Your task to perform on an android device: Set the phone to "Do not disturb". Image 0: 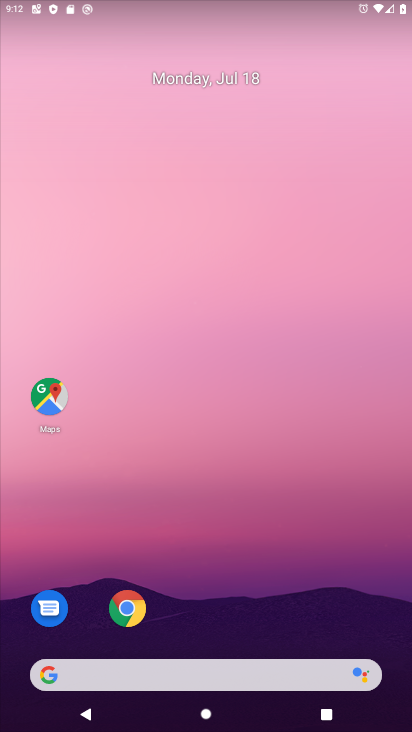
Step 0: press home button
Your task to perform on an android device: Set the phone to "Do not disturb". Image 1: 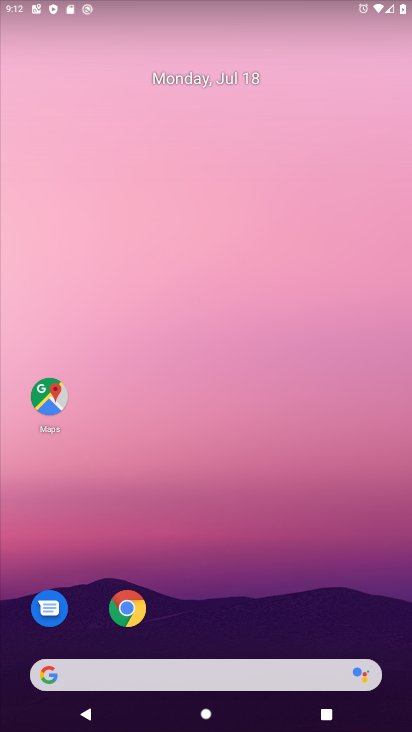
Step 1: drag from (211, 639) to (286, 2)
Your task to perform on an android device: Set the phone to "Do not disturb". Image 2: 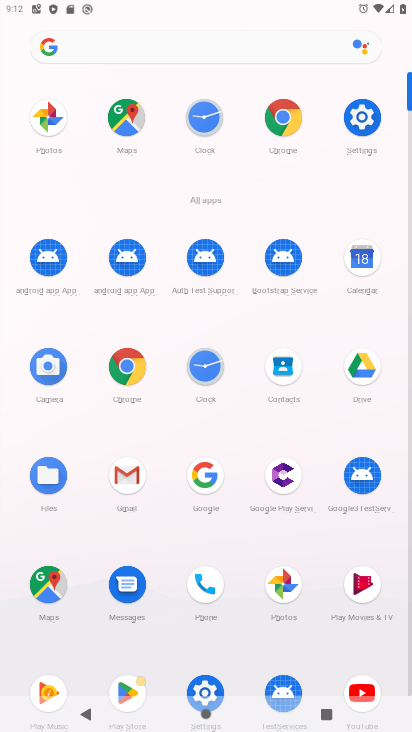
Step 2: drag from (181, 4) to (190, 490)
Your task to perform on an android device: Set the phone to "Do not disturb". Image 3: 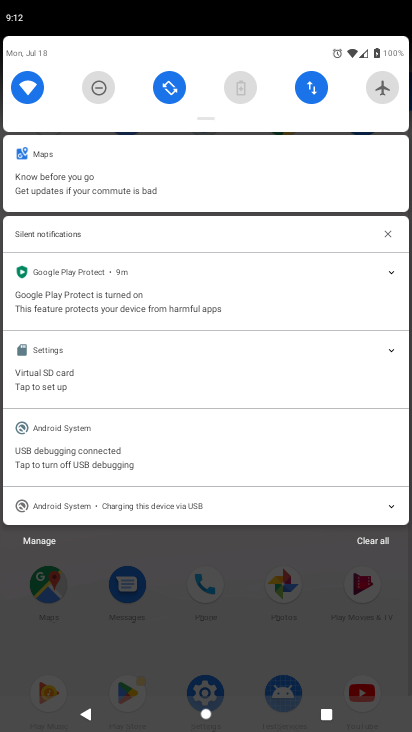
Step 3: click (97, 82)
Your task to perform on an android device: Set the phone to "Do not disturb". Image 4: 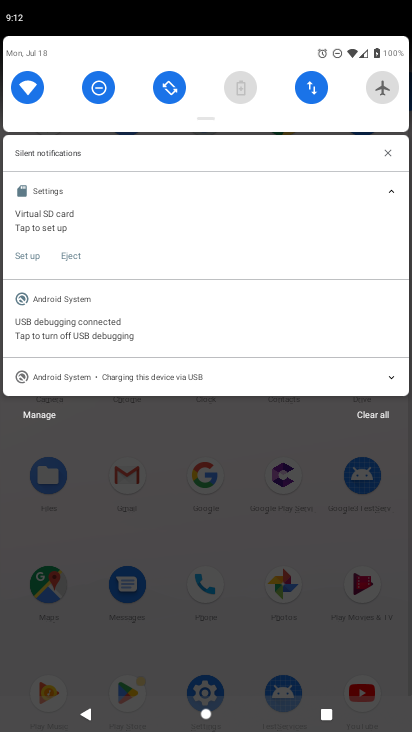
Step 4: task complete